Your task to perform on an android device: Do I have any events today? Image 0: 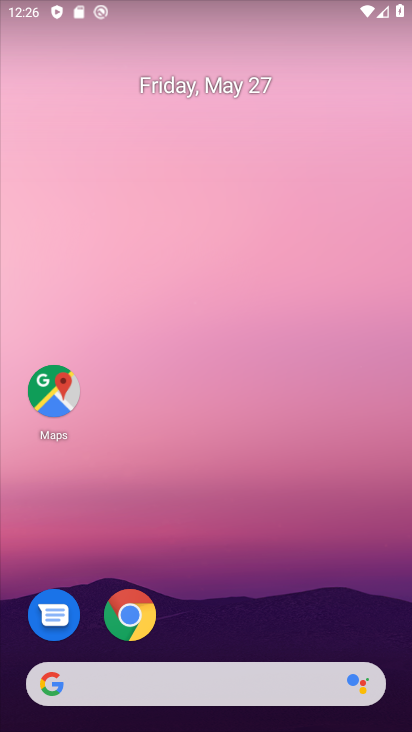
Step 0: press home button
Your task to perform on an android device: Do I have any events today? Image 1: 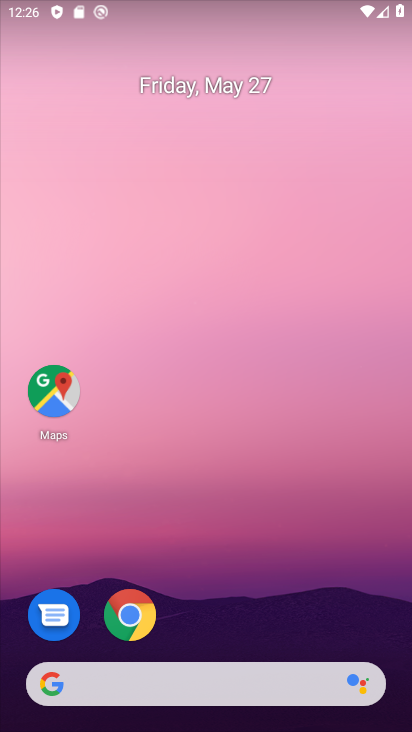
Step 1: drag from (287, 629) to (261, 257)
Your task to perform on an android device: Do I have any events today? Image 2: 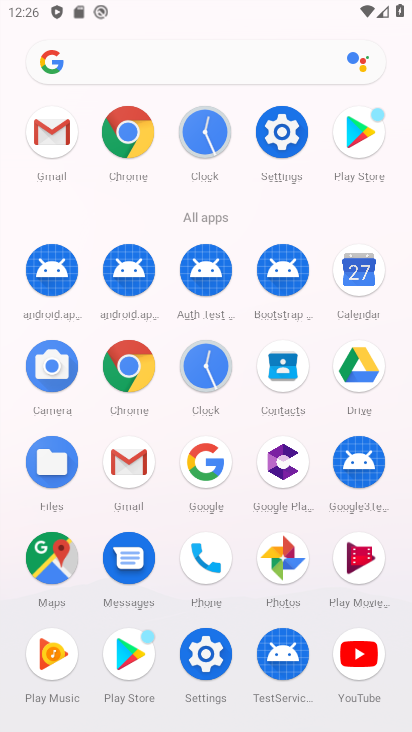
Step 2: click (358, 279)
Your task to perform on an android device: Do I have any events today? Image 3: 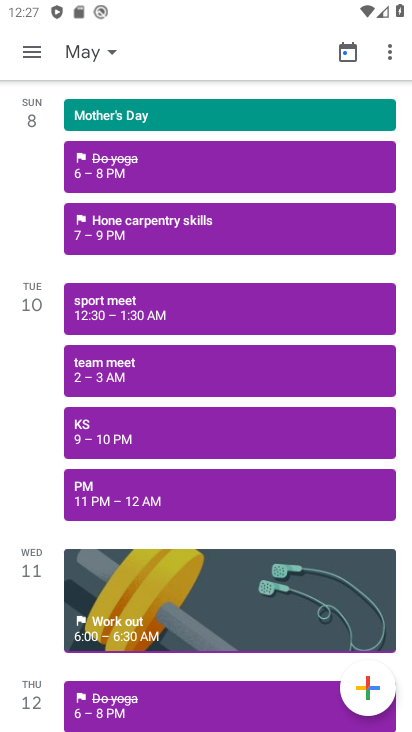
Step 3: click (32, 55)
Your task to perform on an android device: Do I have any events today? Image 4: 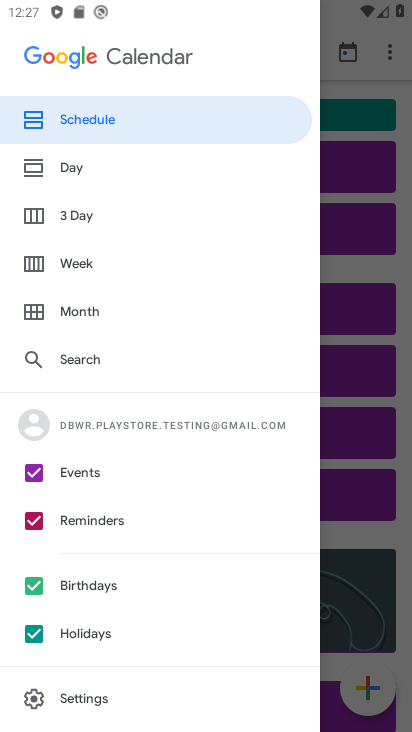
Step 4: click (85, 313)
Your task to perform on an android device: Do I have any events today? Image 5: 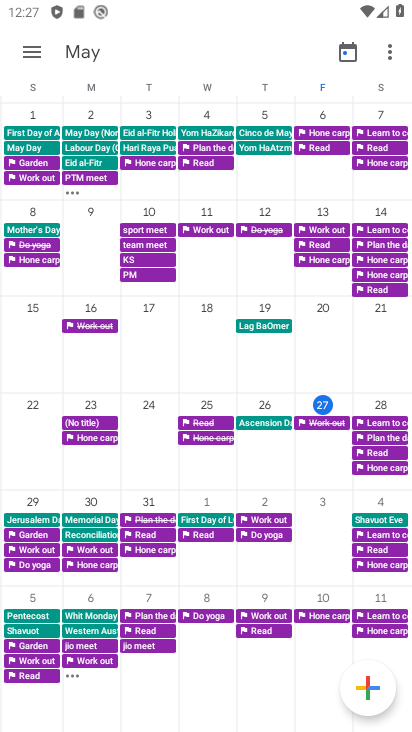
Step 5: click (319, 404)
Your task to perform on an android device: Do I have any events today? Image 6: 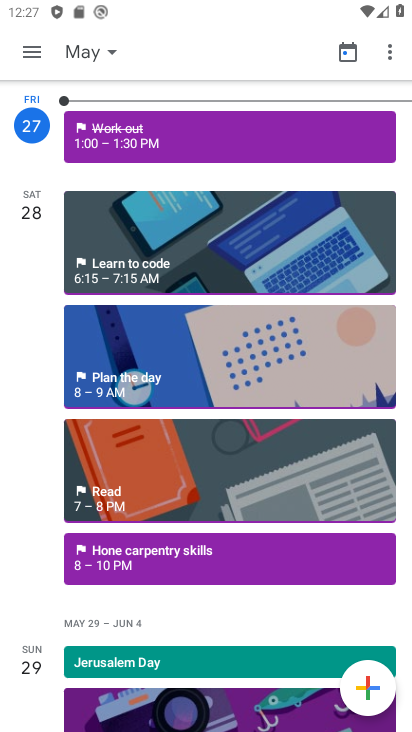
Step 6: task complete